Your task to perform on an android device: turn on improve location accuracy Image 0: 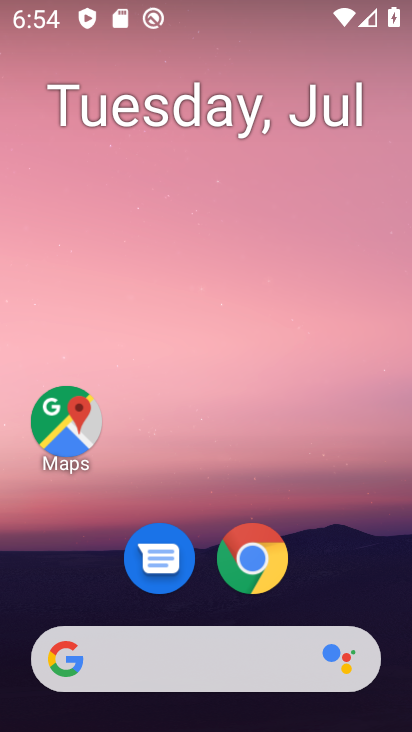
Step 0: drag from (95, 600) to (241, 17)
Your task to perform on an android device: turn on improve location accuracy Image 1: 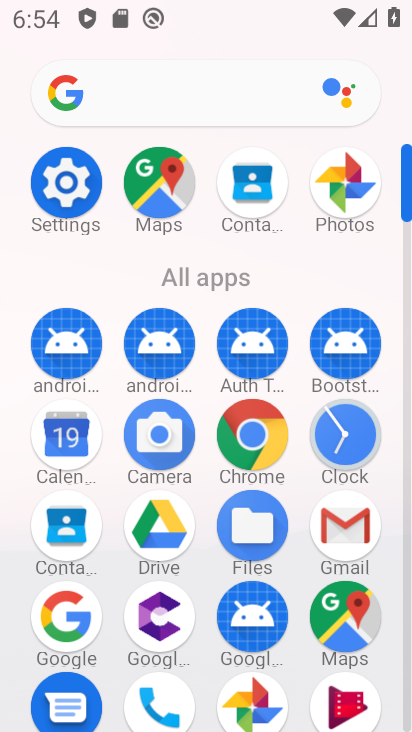
Step 1: click (81, 162)
Your task to perform on an android device: turn on improve location accuracy Image 2: 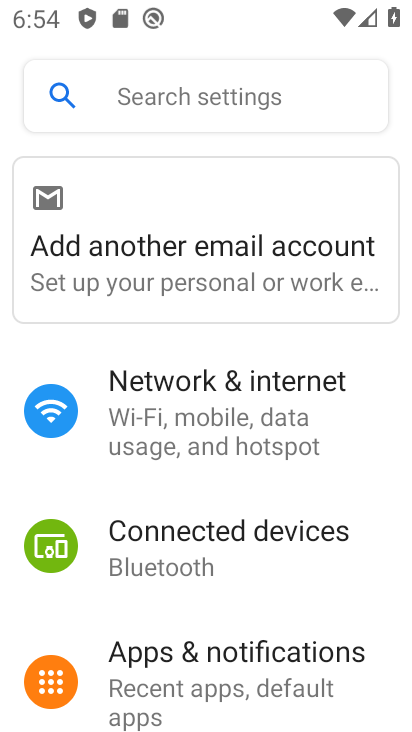
Step 2: drag from (157, 622) to (277, 99)
Your task to perform on an android device: turn on improve location accuracy Image 3: 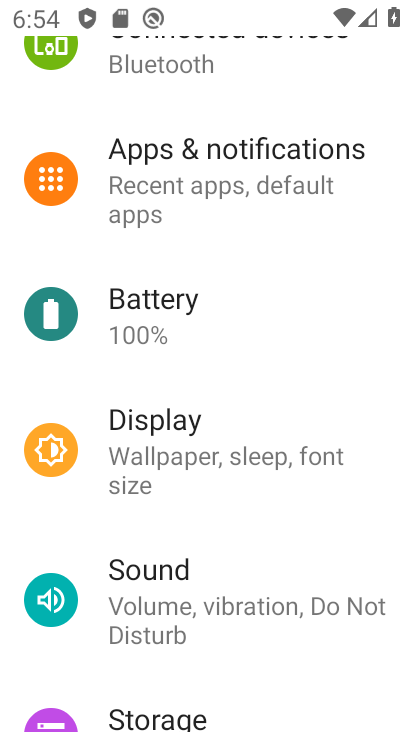
Step 3: drag from (182, 668) to (262, 41)
Your task to perform on an android device: turn on improve location accuracy Image 4: 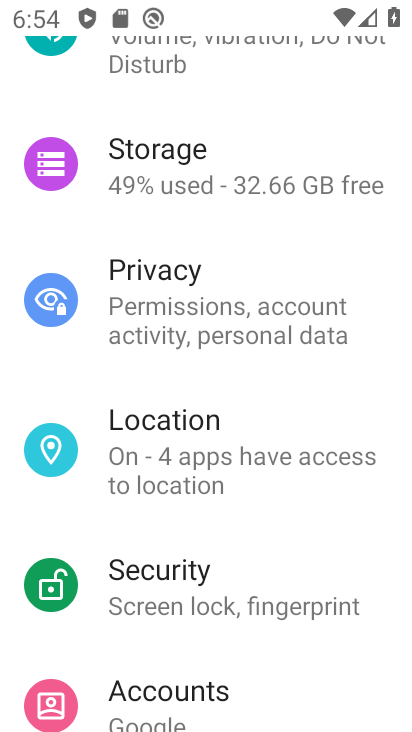
Step 4: click (145, 460)
Your task to perform on an android device: turn on improve location accuracy Image 5: 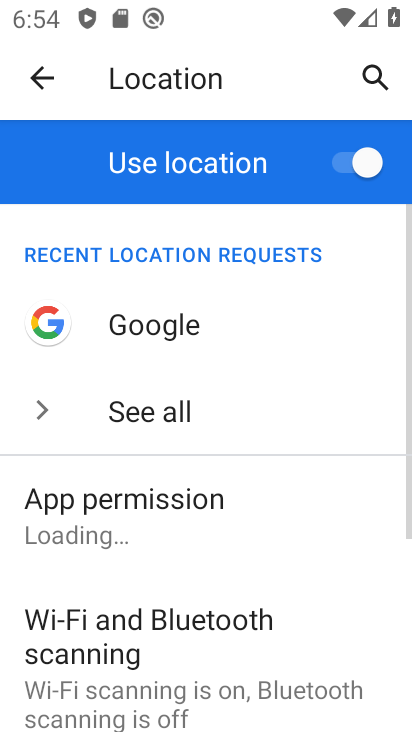
Step 5: drag from (182, 658) to (275, 97)
Your task to perform on an android device: turn on improve location accuracy Image 6: 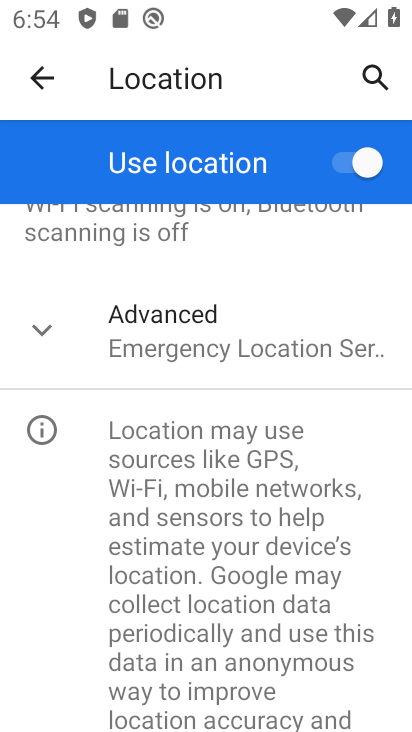
Step 6: click (168, 340)
Your task to perform on an android device: turn on improve location accuracy Image 7: 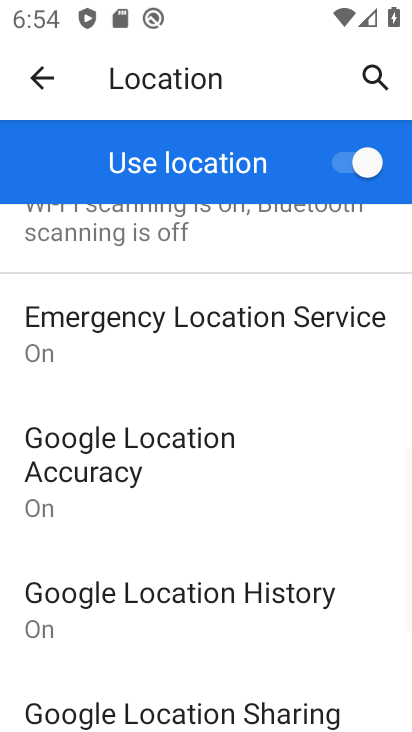
Step 7: click (122, 454)
Your task to perform on an android device: turn on improve location accuracy Image 8: 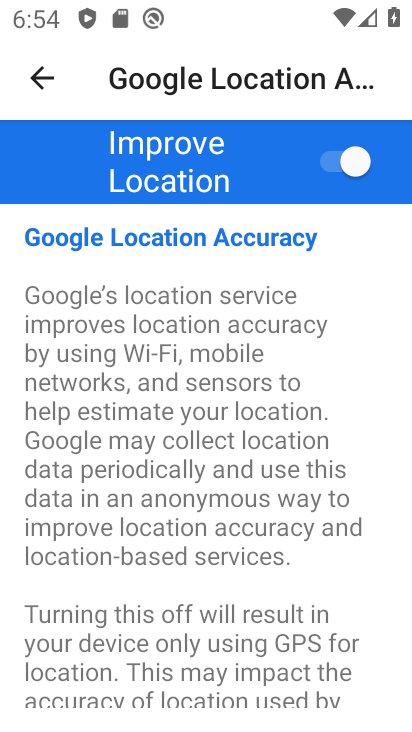
Step 8: task complete